Your task to perform on an android device: see sites visited before in the chrome app Image 0: 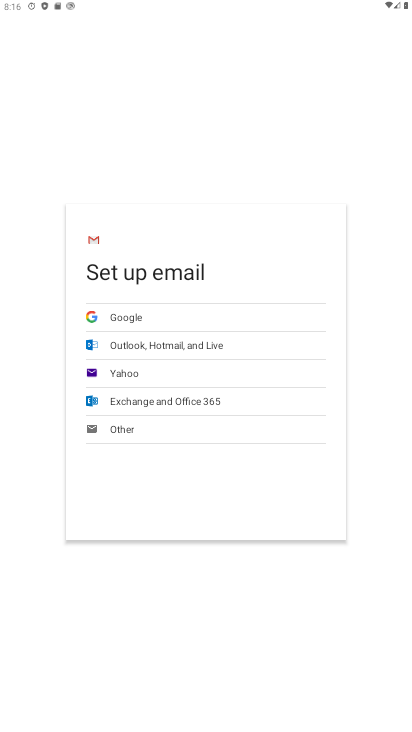
Step 0: press home button
Your task to perform on an android device: see sites visited before in the chrome app Image 1: 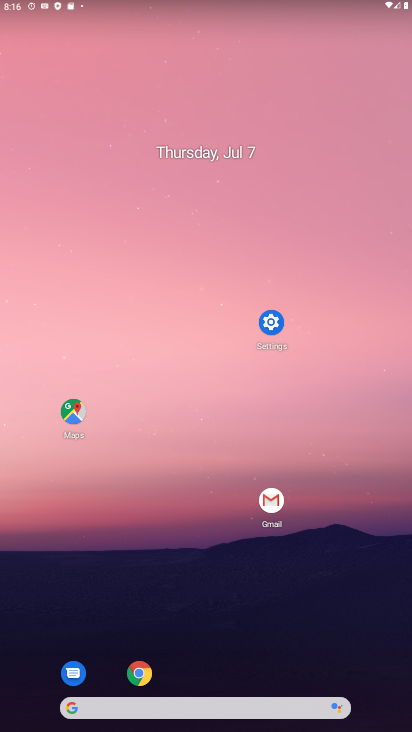
Step 1: click (138, 669)
Your task to perform on an android device: see sites visited before in the chrome app Image 2: 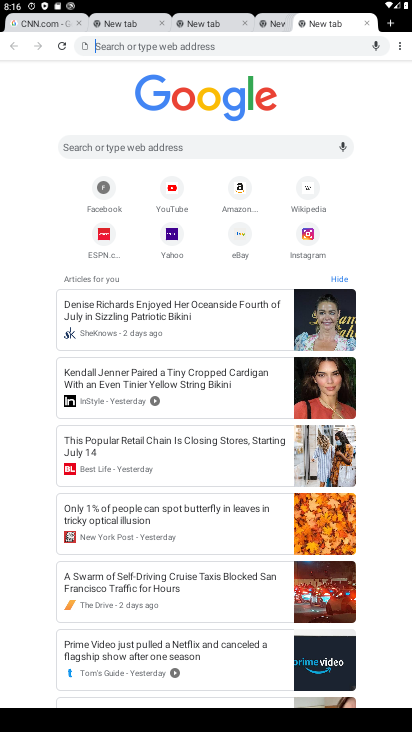
Step 2: click (395, 41)
Your task to perform on an android device: see sites visited before in the chrome app Image 3: 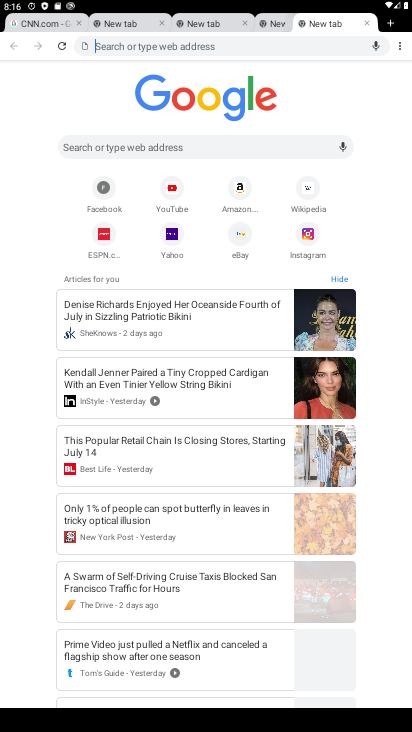
Step 3: click (395, 41)
Your task to perform on an android device: see sites visited before in the chrome app Image 4: 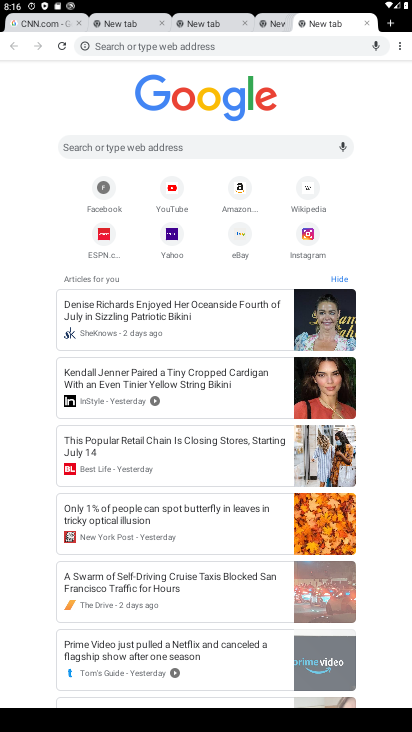
Step 4: click (395, 41)
Your task to perform on an android device: see sites visited before in the chrome app Image 5: 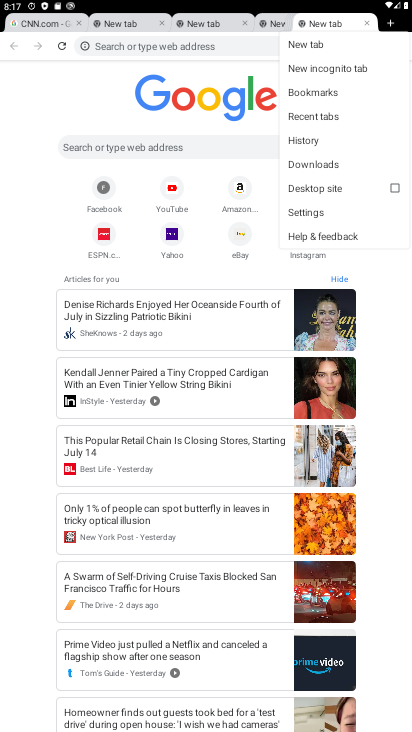
Step 5: click (314, 118)
Your task to perform on an android device: see sites visited before in the chrome app Image 6: 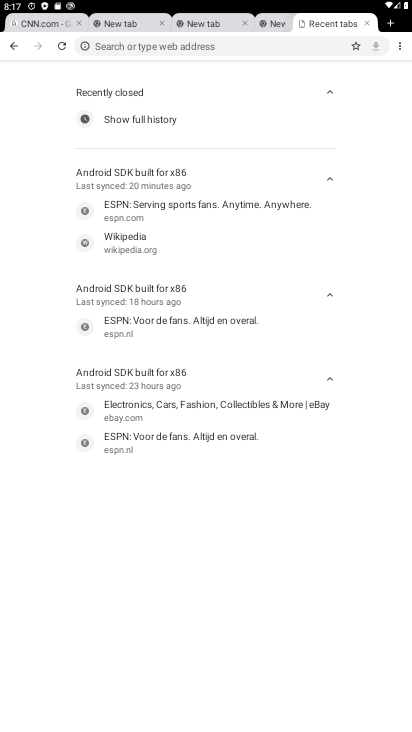
Step 6: task complete